Your task to perform on an android device: turn off javascript in the chrome app Image 0: 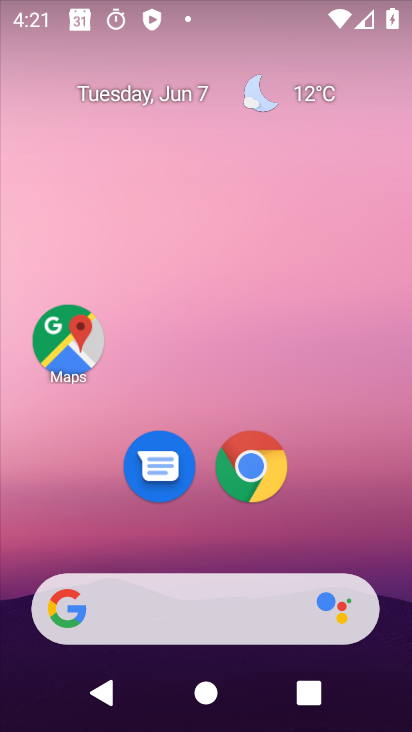
Step 0: drag from (375, 528) to (275, 88)
Your task to perform on an android device: turn off javascript in the chrome app Image 1: 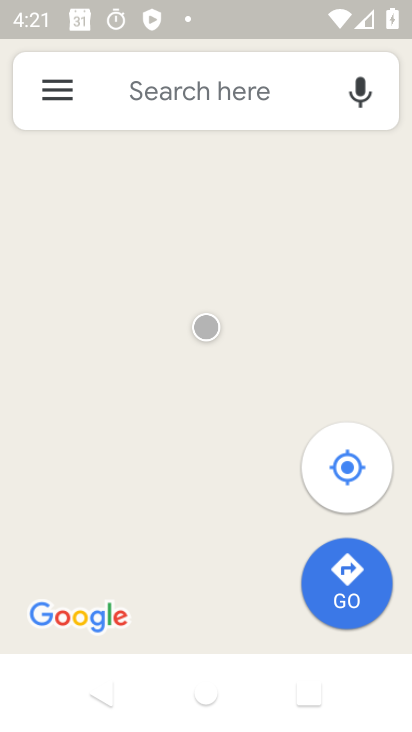
Step 1: press home button
Your task to perform on an android device: turn off javascript in the chrome app Image 2: 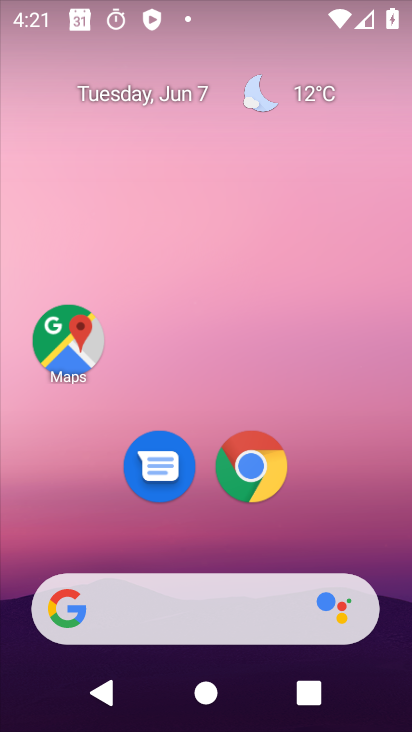
Step 2: click (269, 470)
Your task to perform on an android device: turn off javascript in the chrome app Image 3: 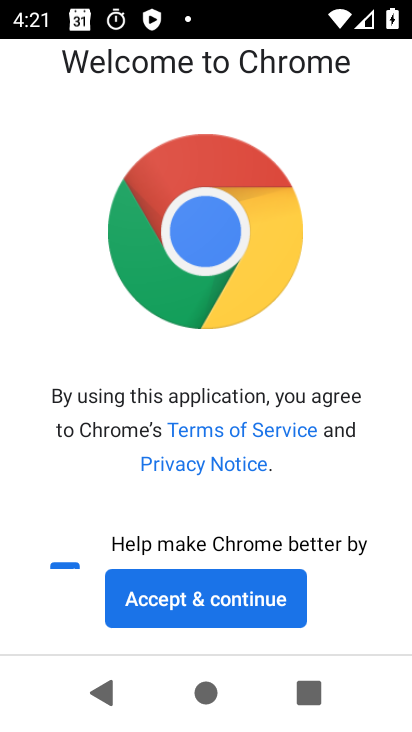
Step 3: click (247, 587)
Your task to perform on an android device: turn off javascript in the chrome app Image 4: 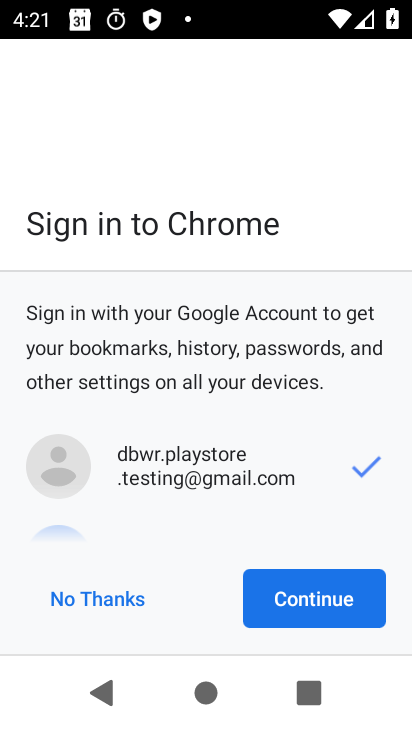
Step 4: click (296, 598)
Your task to perform on an android device: turn off javascript in the chrome app Image 5: 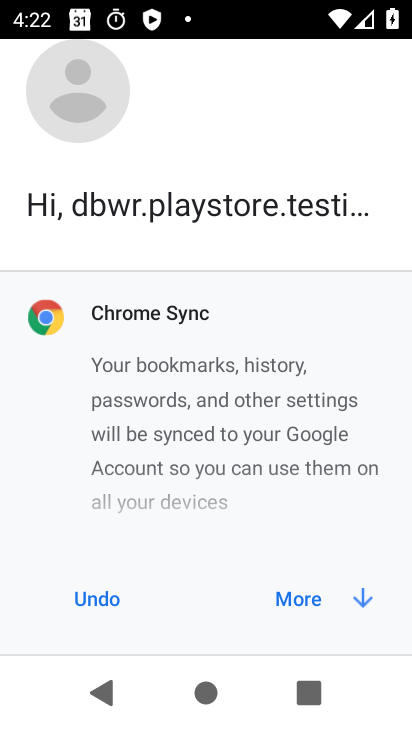
Step 5: click (296, 598)
Your task to perform on an android device: turn off javascript in the chrome app Image 6: 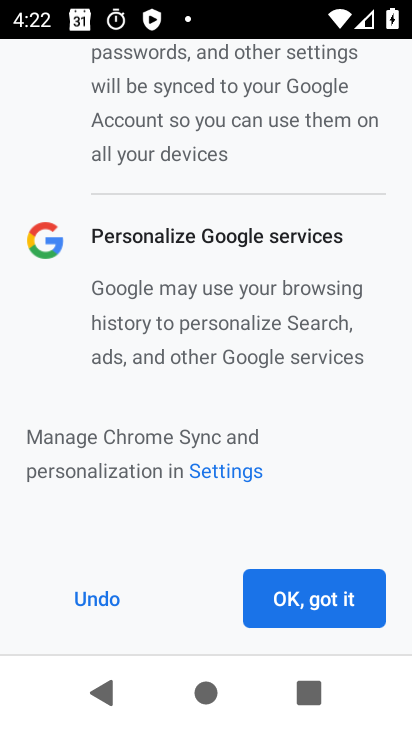
Step 6: click (296, 598)
Your task to perform on an android device: turn off javascript in the chrome app Image 7: 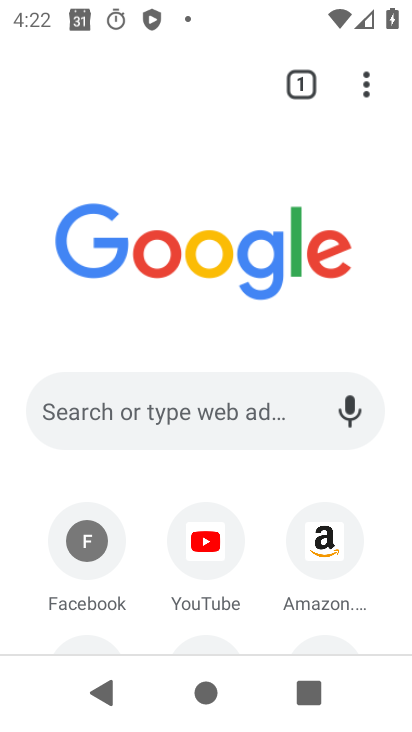
Step 7: click (370, 73)
Your task to perform on an android device: turn off javascript in the chrome app Image 8: 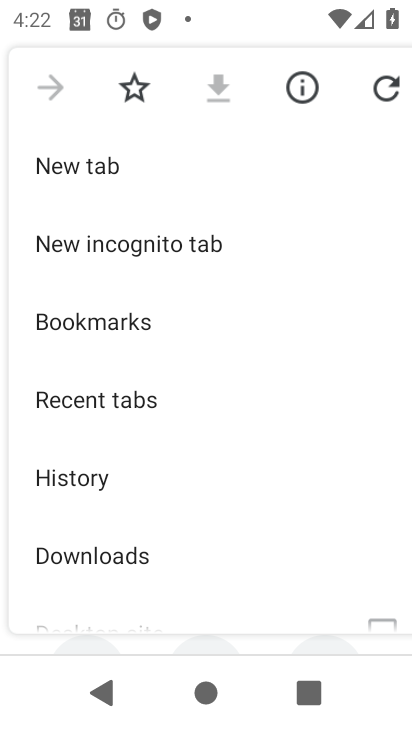
Step 8: drag from (203, 548) to (105, 2)
Your task to perform on an android device: turn off javascript in the chrome app Image 9: 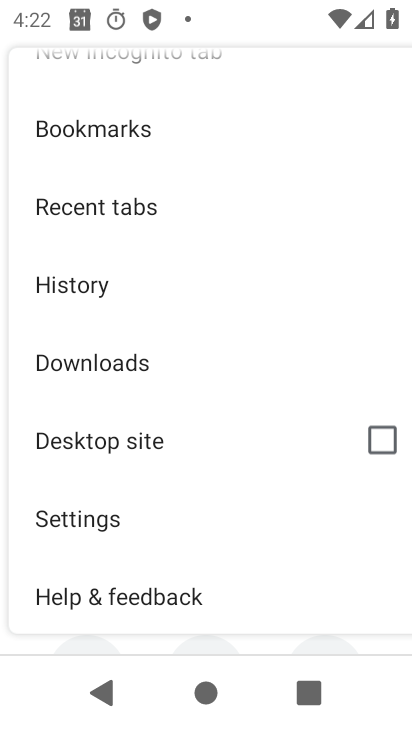
Step 9: click (129, 529)
Your task to perform on an android device: turn off javascript in the chrome app Image 10: 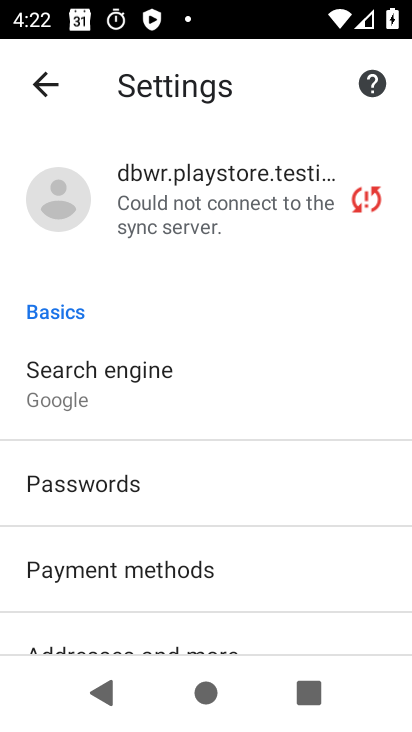
Step 10: drag from (232, 641) to (169, 104)
Your task to perform on an android device: turn off javascript in the chrome app Image 11: 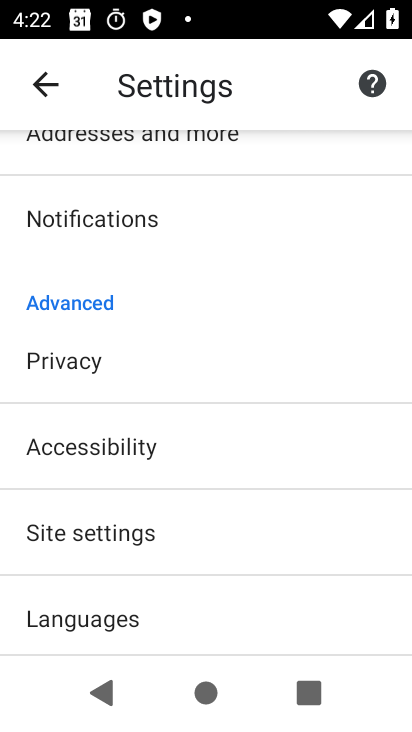
Step 11: click (187, 534)
Your task to perform on an android device: turn off javascript in the chrome app Image 12: 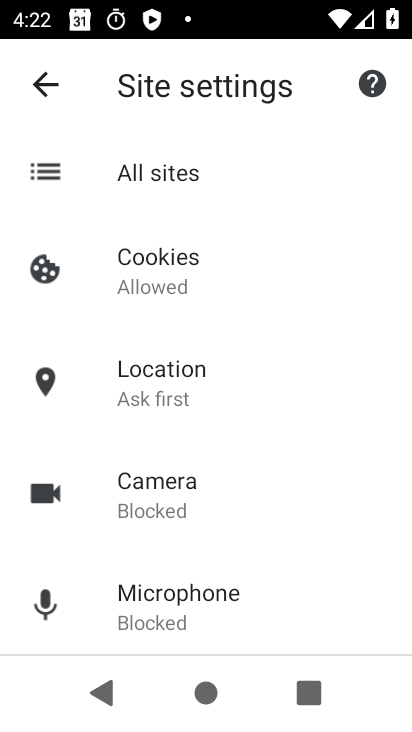
Step 12: drag from (266, 607) to (193, 60)
Your task to perform on an android device: turn off javascript in the chrome app Image 13: 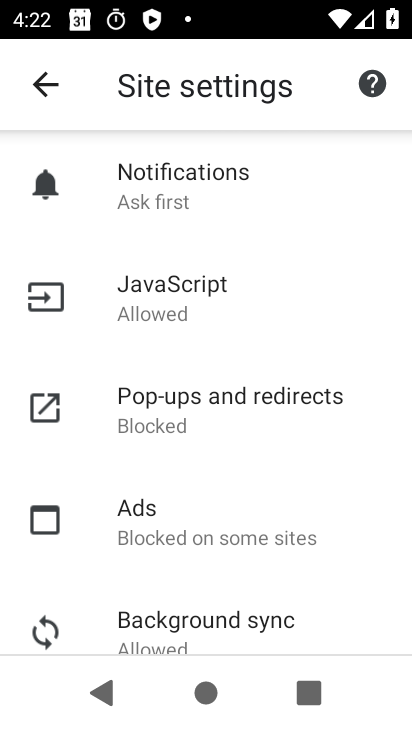
Step 13: click (229, 291)
Your task to perform on an android device: turn off javascript in the chrome app Image 14: 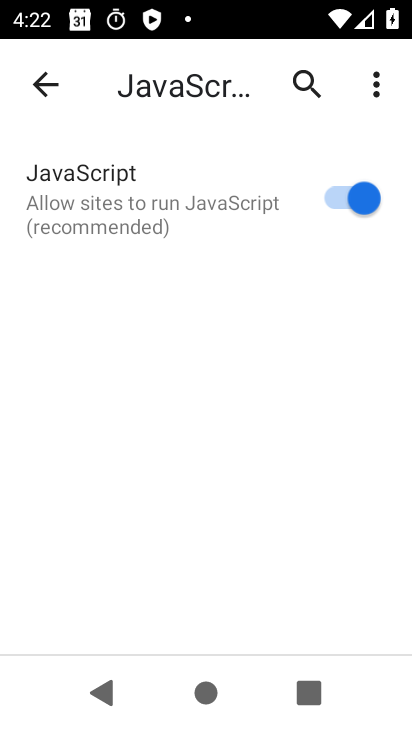
Step 14: click (337, 220)
Your task to perform on an android device: turn off javascript in the chrome app Image 15: 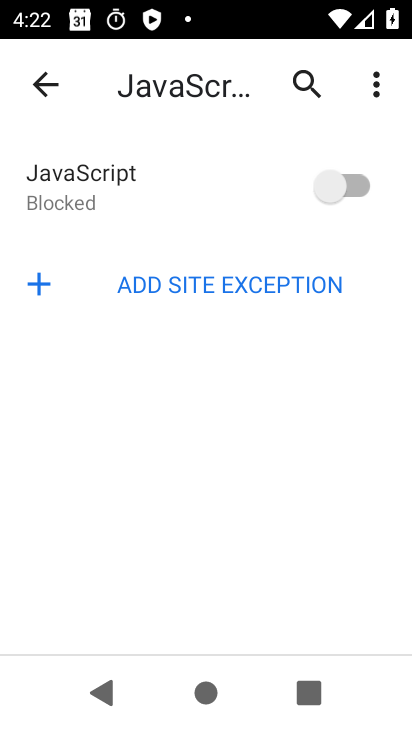
Step 15: task complete